Your task to perform on an android device: Open the calendar and show me this week's events? Image 0: 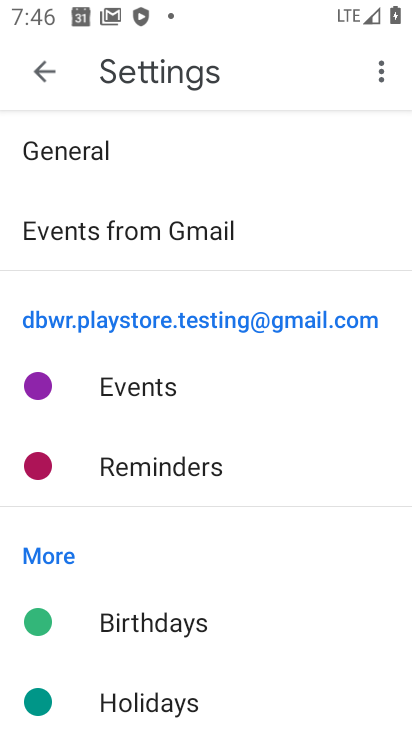
Step 0: press home button
Your task to perform on an android device: Open the calendar and show me this week's events? Image 1: 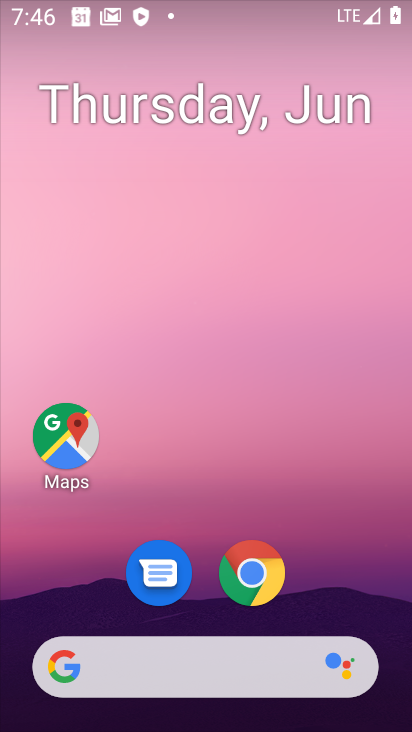
Step 1: drag from (225, 567) to (231, 306)
Your task to perform on an android device: Open the calendar and show me this week's events? Image 2: 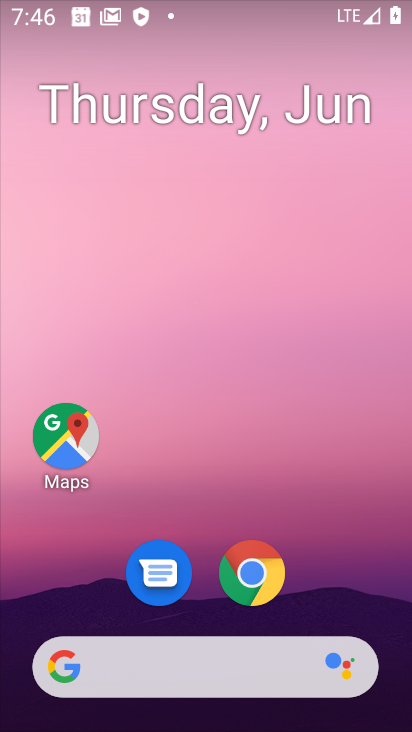
Step 2: drag from (189, 608) to (193, 304)
Your task to perform on an android device: Open the calendar and show me this week's events? Image 3: 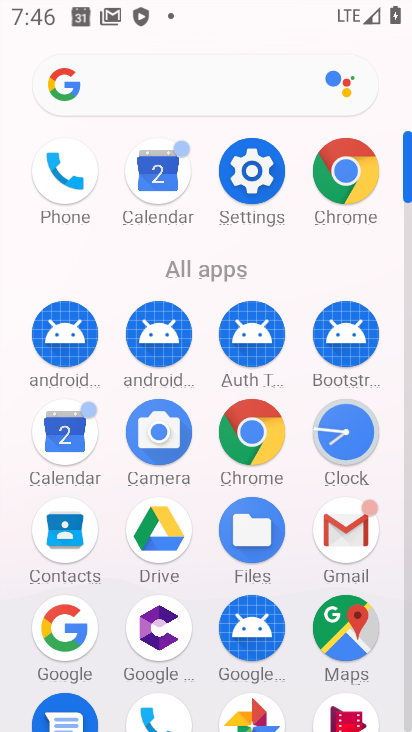
Step 3: click (48, 418)
Your task to perform on an android device: Open the calendar and show me this week's events? Image 4: 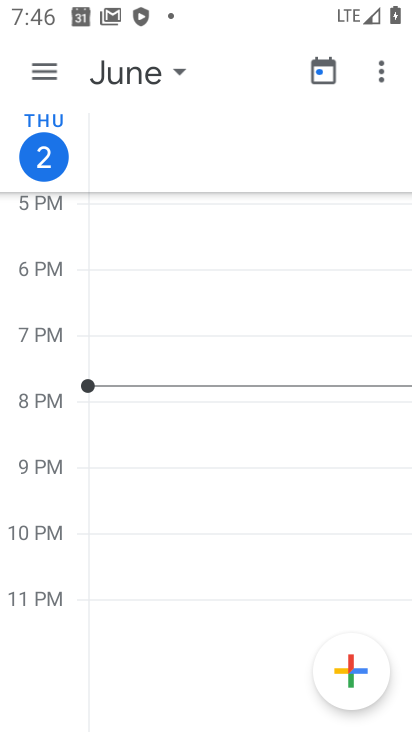
Step 4: click (52, 65)
Your task to perform on an android device: Open the calendar and show me this week's events? Image 5: 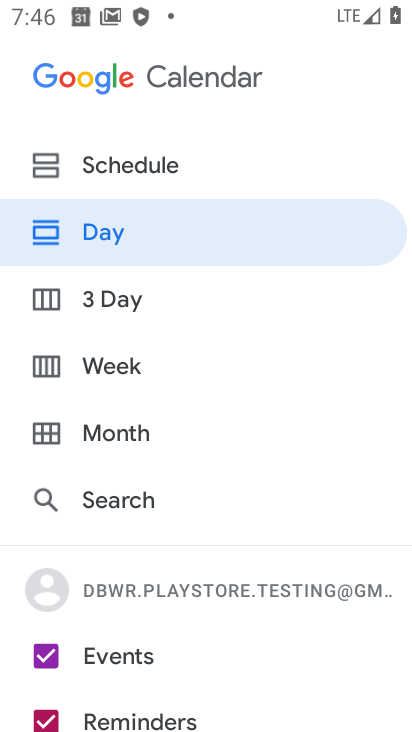
Step 5: click (154, 363)
Your task to perform on an android device: Open the calendar and show me this week's events? Image 6: 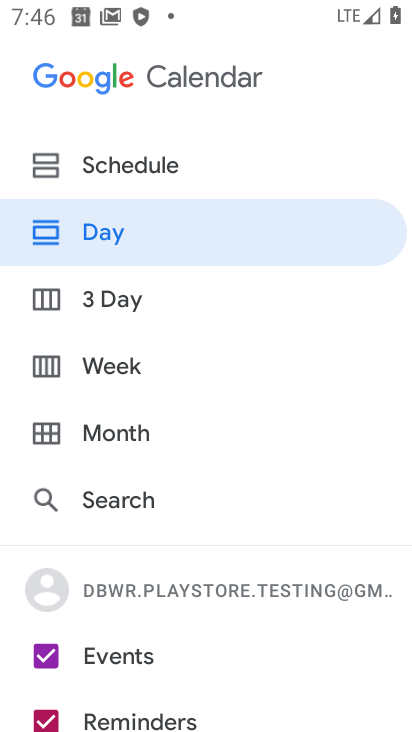
Step 6: click (153, 364)
Your task to perform on an android device: Open the calendar and show me this week's events? Image 7: 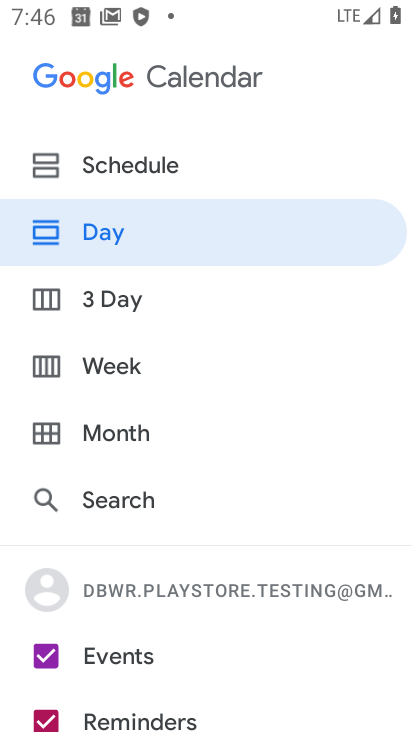
Step 7: click (124, 355)
Your task to perform on an android device: Open the calendar and show me this week's events? Image 8: 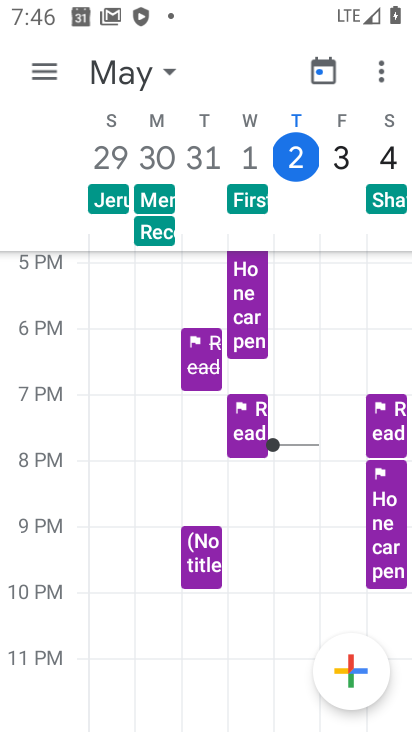
Step 8: task complete